Your task to perform on an android device: open app "ZOOM Cloud Meetings" Image 0: 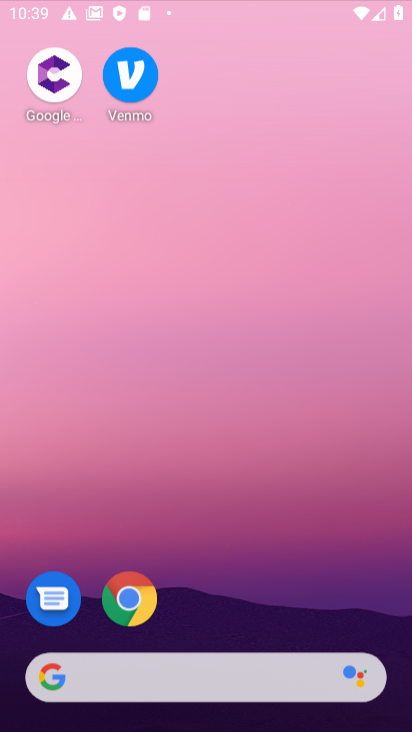
Step 0: press home button
Your task to perform on an android device: open app "ZOOM Cloud Meetings" Image 1: 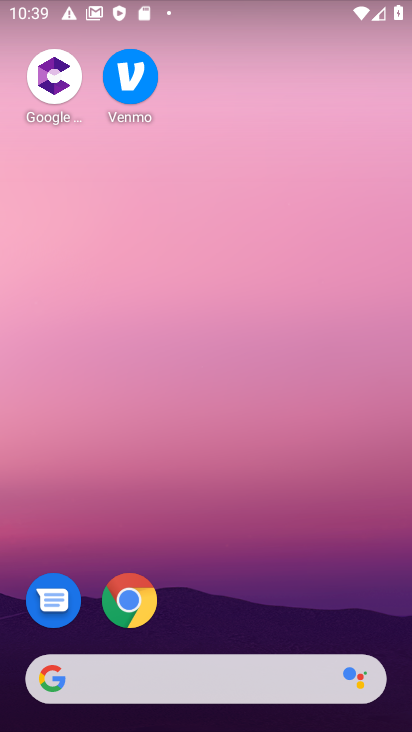
Step 1: press home button
Your task to perform on an android device: open app "ZOOM Cloud Meetings" Image 2: 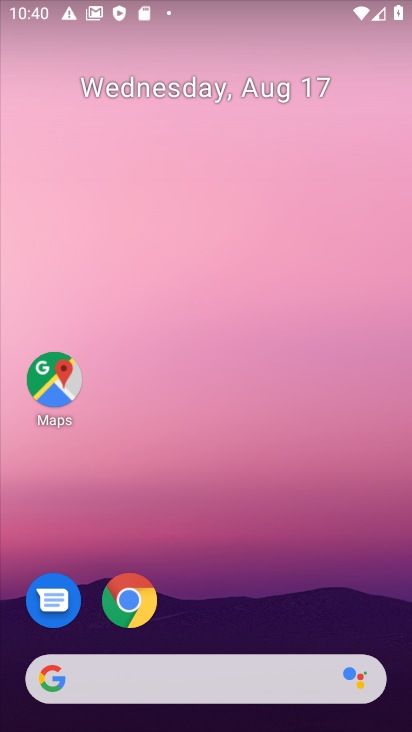
Step 2: drag from (216, 636) to (237, 0)
Your task to perform on an android device: open app "ZOOM Cloud Meetings" Image 3: 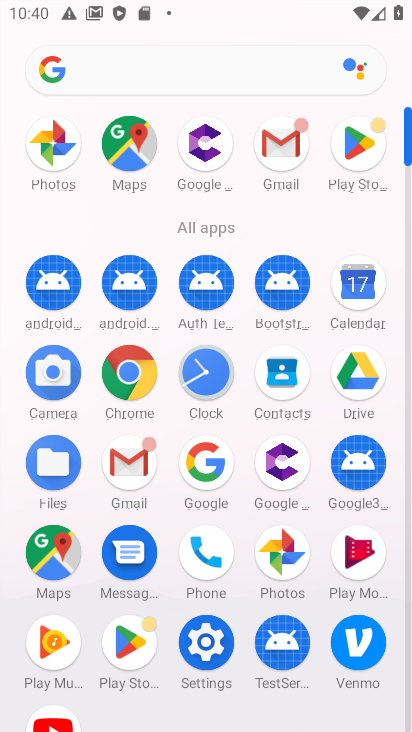
Step 3: click (361, 135)
Your task to perform on an android device: open app "ZOOM Cloud Meetings" Image 4: 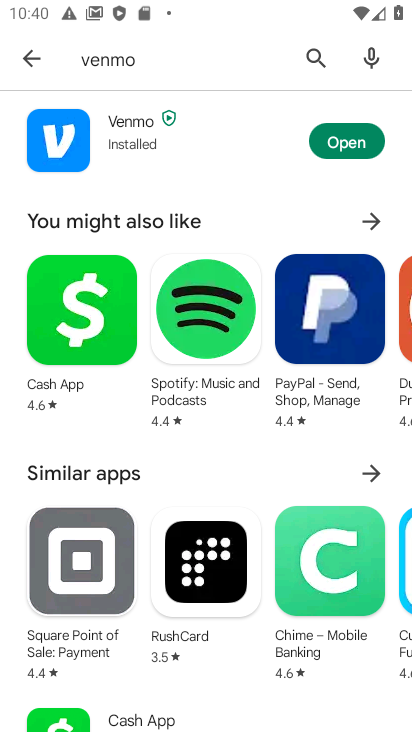
Step 4: click (316, 58)
Your task to perform on an android device: open app "ZOOM Cloud Meetings" Image 5: 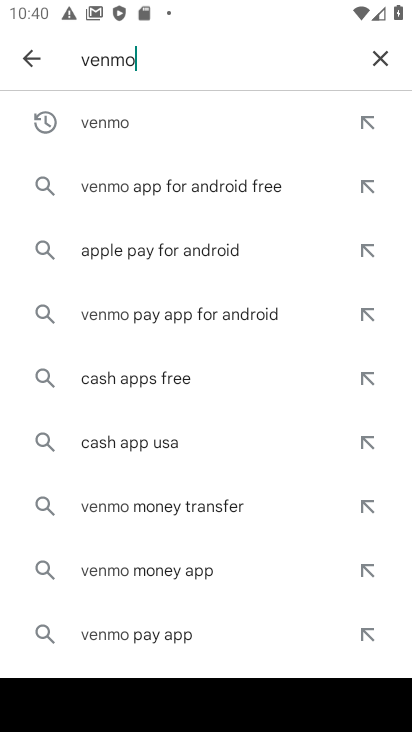
Step 5: click (387, 57)
Your task to perform on an android device: open app "ZOOM Cloud Meetings" Image 6: 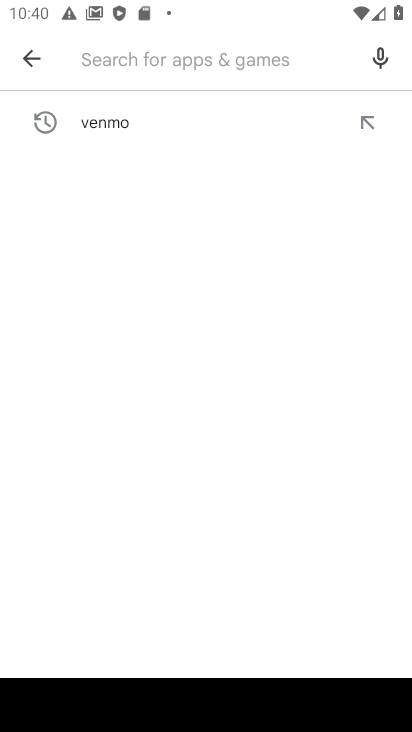
Step 6: type "ZOOM Cloud Meetings"
Your task to perform on an android device: open app "ZOOM Cloud Meetings" Image 7: 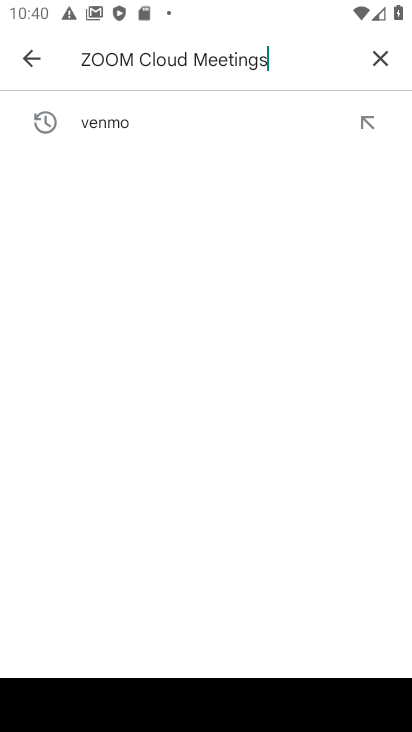
Step 7: type ""
Your task to perform on an android device: open app "ZOOM Cloud Meetings" Image 8: 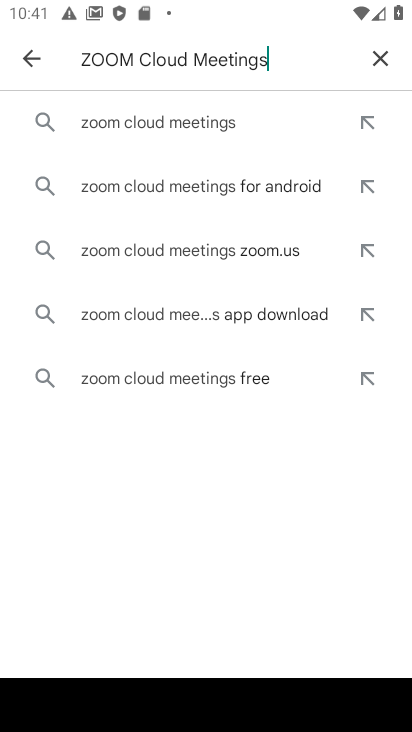
Step 8: click (211, 120)
Your task to perform on an android device: open app "ZOOM Cloud Meetings" Image 9: 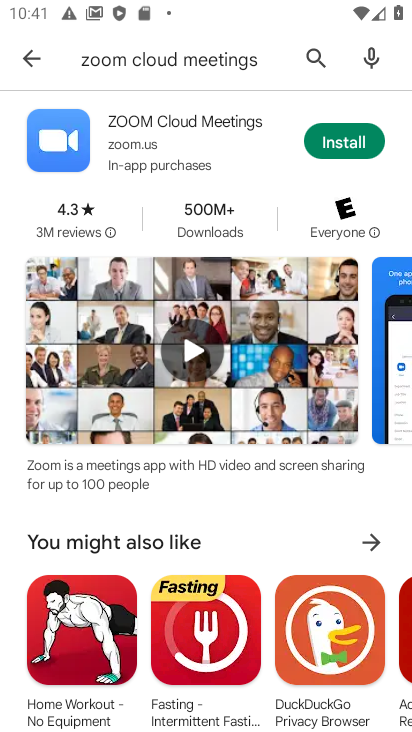
Step 9: task complete